Your task to perform on an android device: install app "Adobe Acrobat Reader: Edit PDF" Image 0: 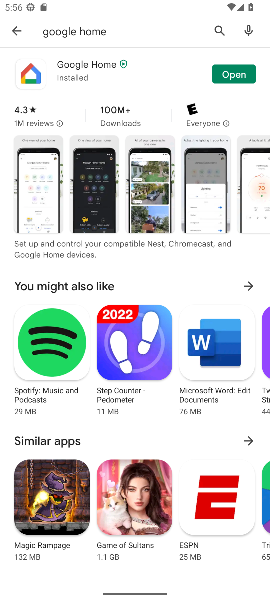
Step 0: press home button
Your task to perform on an android device: install app "Adobe Acrobat Reader: Edit PDF" Image 1: 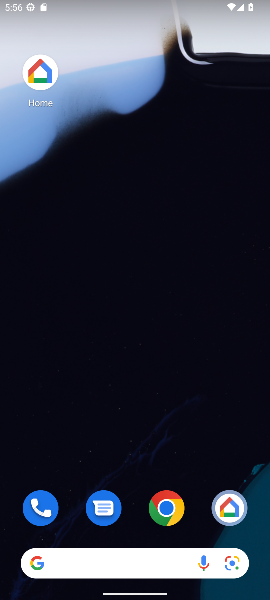
Step 1: drag from (109, 539) to (244, 3)
Your task to perform on an android device: install app "Adobe Acrobat Reader: Edit PDF" Image 2: 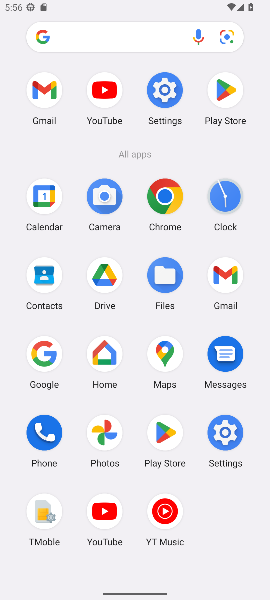
Step 2: click (144, 440)
Your task to perform on an android device: install app "Adobe Acrobat Reader: Edit PDF" Image 3: 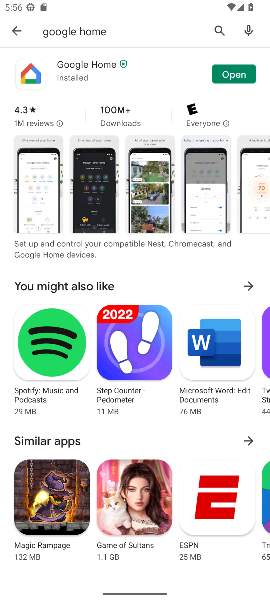
Step 3: click (18, 30)
Your task to perform on an android device: install app "Adobe Acrobat Reader: Edit PDF" Image 4: 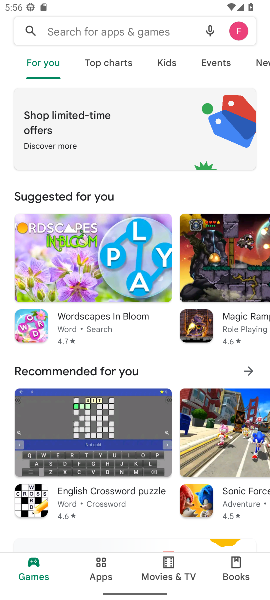
Step 4: click (96, 35)
Your task to perform on an android device: install app "Adobe Acrobat Reader: Edit PDF" Image 5: 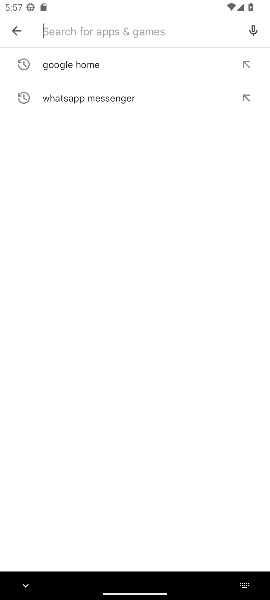
Step 5: type "Adobe Acrobat Reader: Edit PD"
Your task to perform on an android device: install app "Adobe Acrobat Reader: Edit PDF" Image 6: 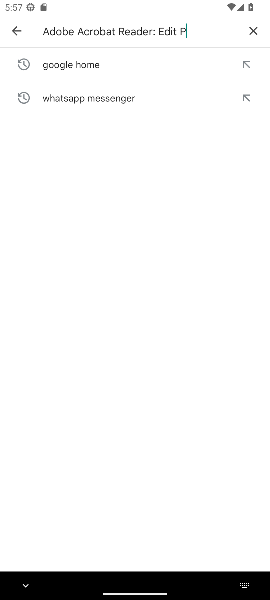
Step 6: type ""
Your task to perform on an android device: install app "Adobe Acrobat Reader: Edit PDF" Image 7: 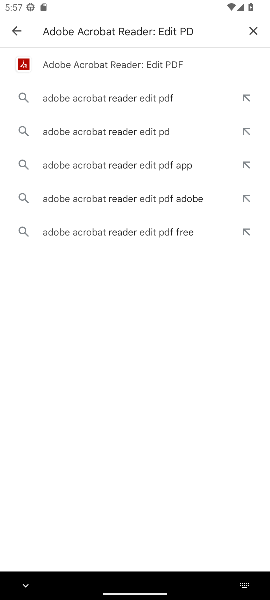
Step 7: click (55, 68)
Your task to perform on an android device: install app "Adobe Acrobat Reader: Edit PDF" Image 8: 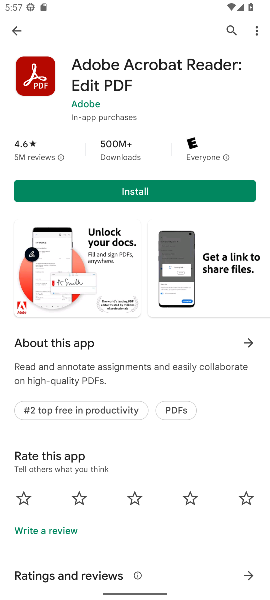
Step 8: click (88, 194)
Your task to perform on an android device: install app "Adobe Acrobat Reader: Edit PDF" Image 9: 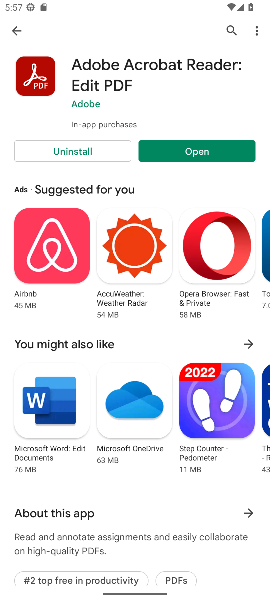
Step 9: click (239, 146)
Your task to perform on an android device: install app "Adobe Acrobat Reader: Edit PDF" Image 10: 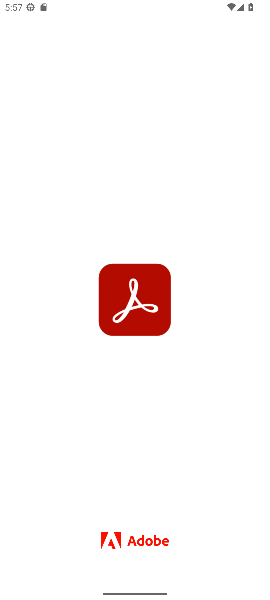
Step 10: task complete